Your task to perform on an android device: turn pop-ups on in chrome Image 0: 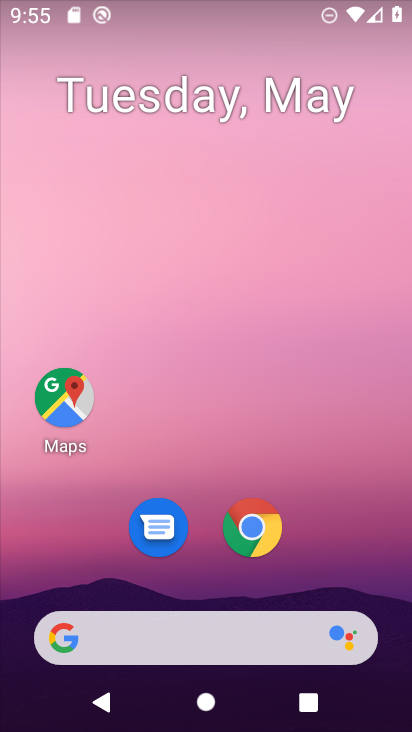
Step 0: click (248, 525)
Your task to perform on an android device: turn pop-ups on in chrome Image 1: 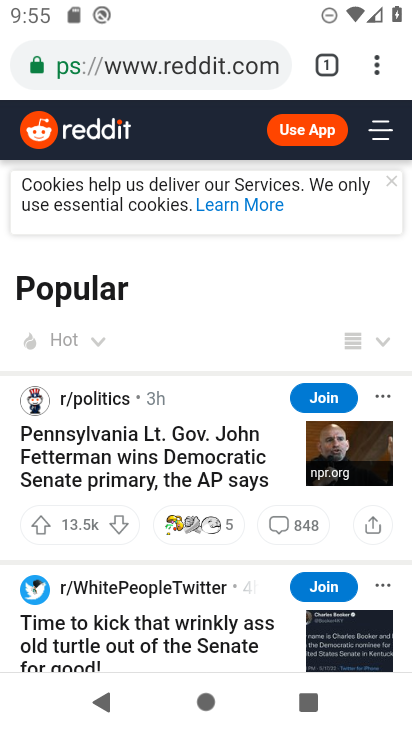
Step 1: click (378, 65)
Your task to perform on an android device: turn pop-ups on in chrome Image 2: 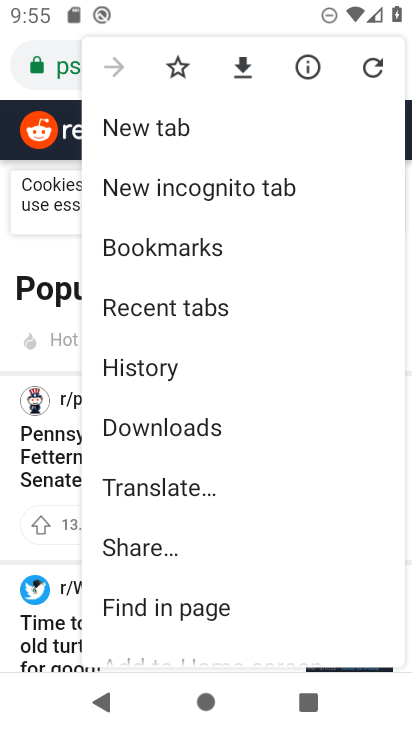
Step 2: drag from (163, 581) to (219, 491)
Your task to perform on an android device: turn pop-ups on in chrome Image 3: 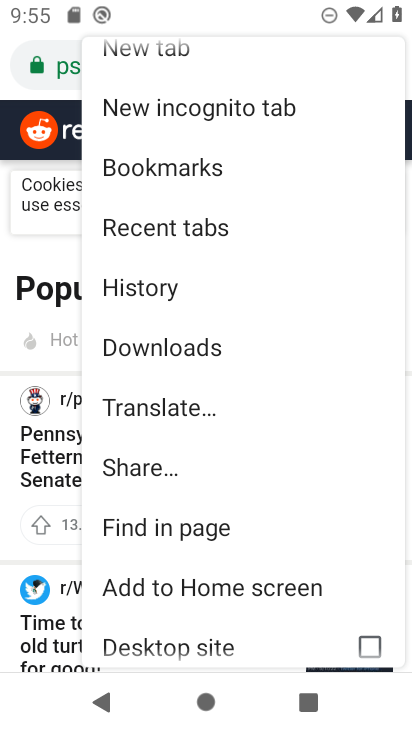
Step 3: drag from (182, 553) to (261, 454)
Your task to perform on an android device: turn pop-ups on in chrome Image 4: 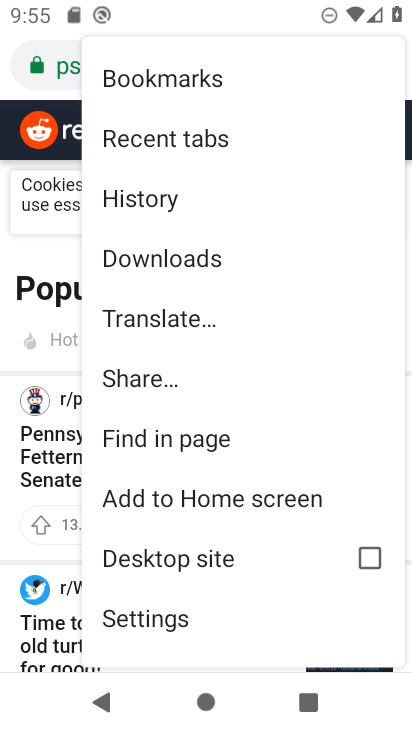
Step 4: drag from (188, 522) to (265, 431)
Your task to perform on an android device: turn pop-ups on in chrome Image 5: 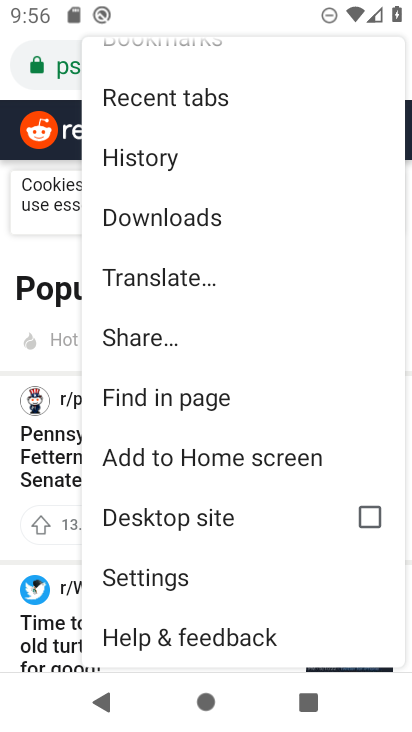
Step 5: click (156, 576)
Your task to perform on an android device: turn pop-ups on in chrome Image 6: 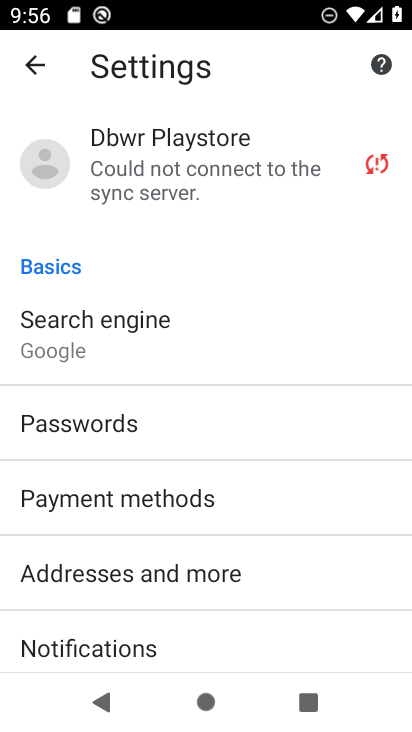
Step 6: drag from (164, 472) to (264, 369)
Your task to perform on an android device: turn pop-ups on in chrome Image 7: 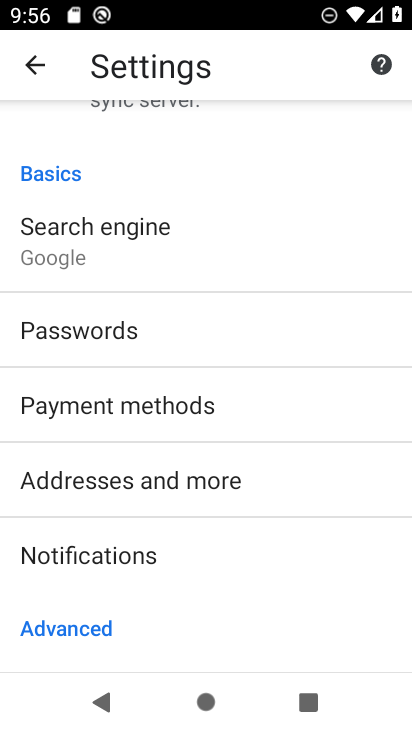
Step 7: drag from (156, 499) to (210, 431)
Your task to perform on an android device: turn pop-ups on in chrome Image 8: 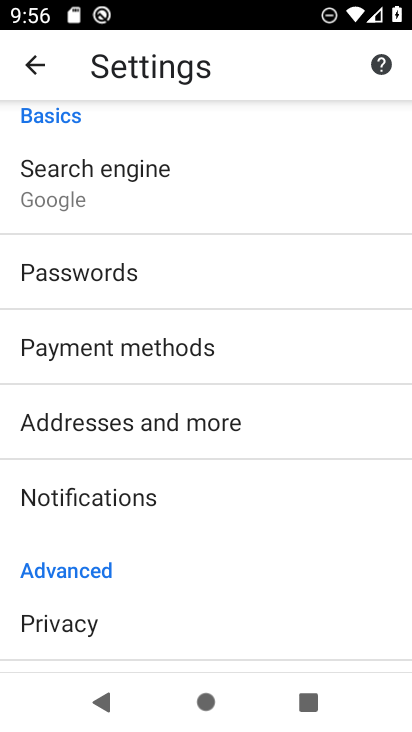
Step 8: drag from (110, 539) to (215, 422)
Your task to perform on an android device: turn pop-ups on in chrome Image 9: 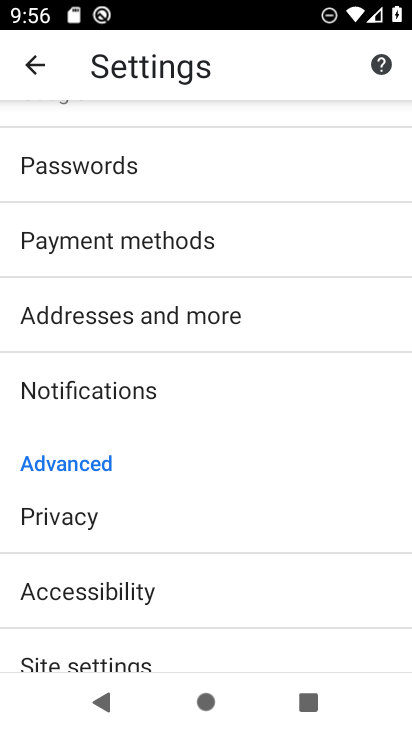
Step 9: drag from (131, 526) to (263, 388)
Your task to perform on an android device: turn pop-ups on in chrome Image 10: 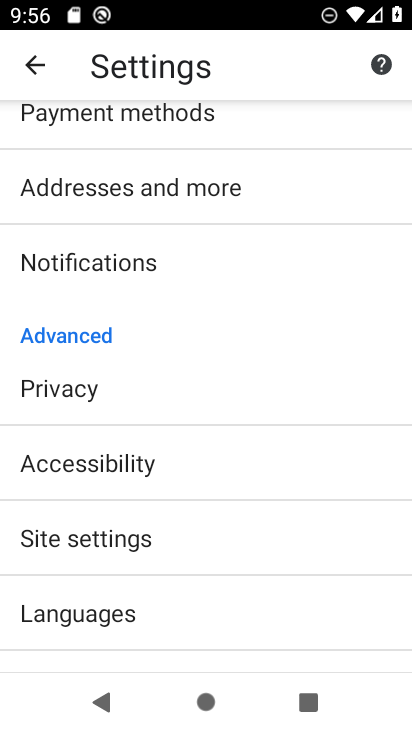
Step 10: click (120, 540)
Your task to perform on an android device: turn pop-ups on in chrome Image 11: 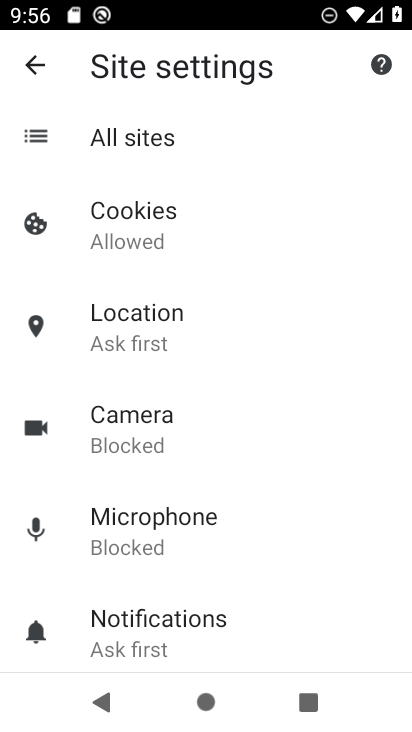
Step 11: drag from (177, 564) to (240, 472)
Your task to perform on an android device: turn pop-ups on in chrome Image 12: 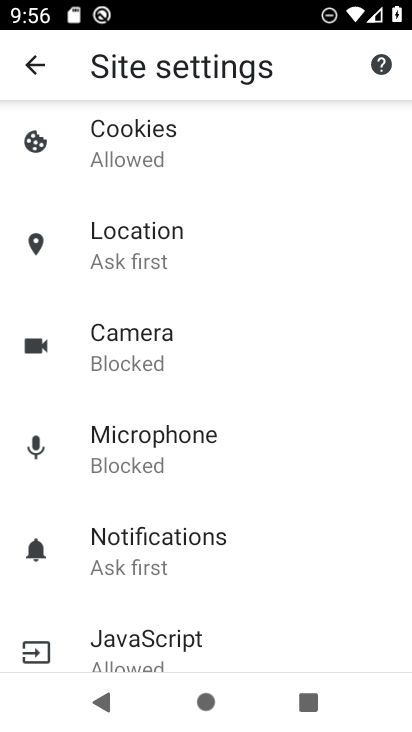
Step 12: drag from (185, 569) to (224, 488)
Your task to perform on an android device: turn pop-ups on in chrome Image 13: 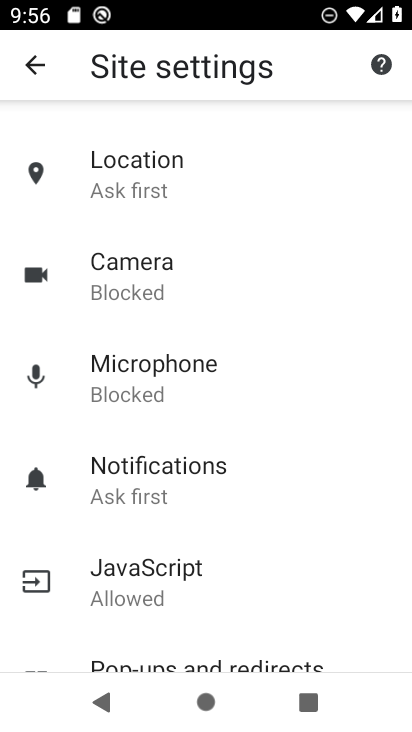
Step 13: drag from (168, 593) to (215, 506)
Your task to perform on an android device: turn pop-ups on in chrome Image 14: 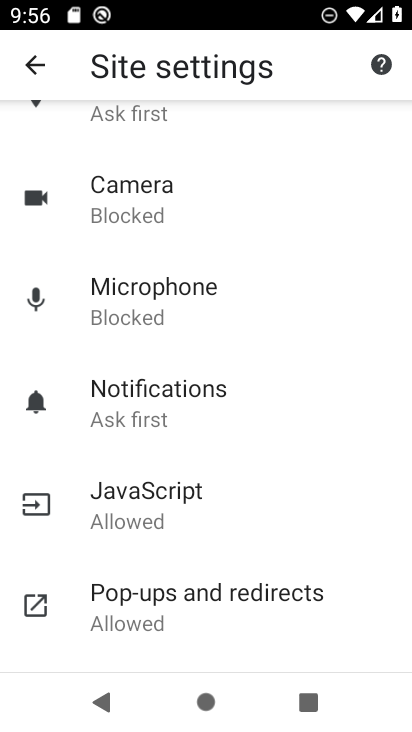
Step 14: drag from (169, 555) to (214, 490)
Your task to perform on an android device: turn pop-ups on in chrome Image 15: 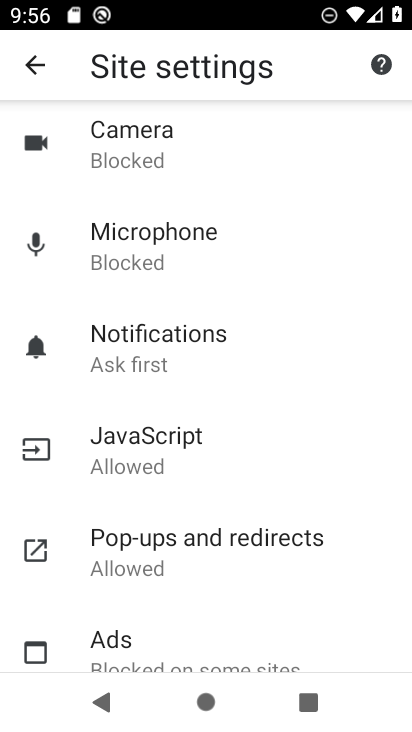
Step 15: click (206, 540)
Your task to perform on an android device: turn pop-ups on in chrome Image 16: 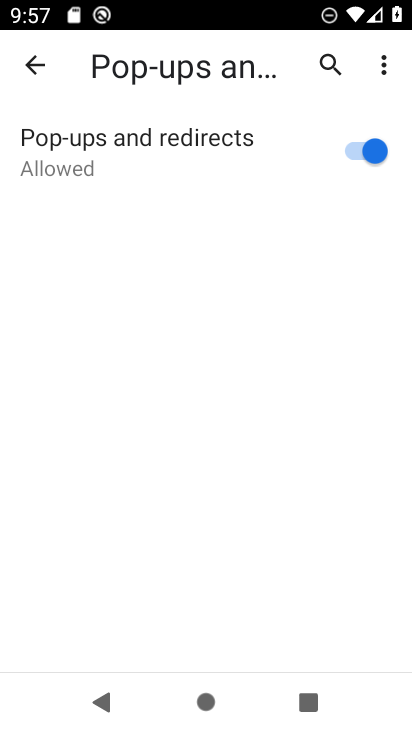
Step 16: task complete